Your task to perform on an android device: toggle show notifications on the lock screen Image 0: 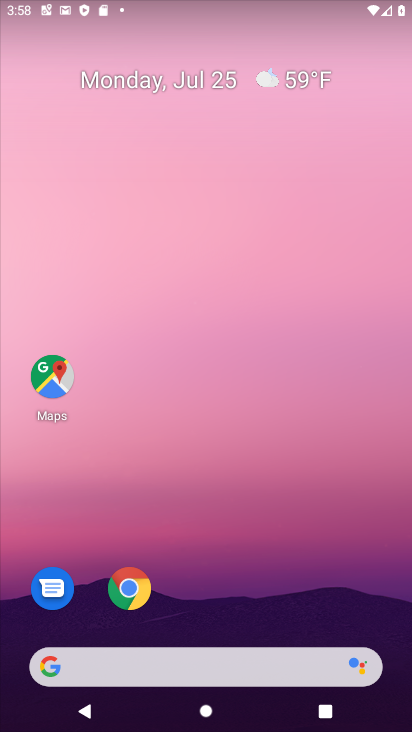
Step 0: drag from (209, 605) to (228, 57)
Your task to perform on an android device: toggle show notifications on the lock screen Image 1: 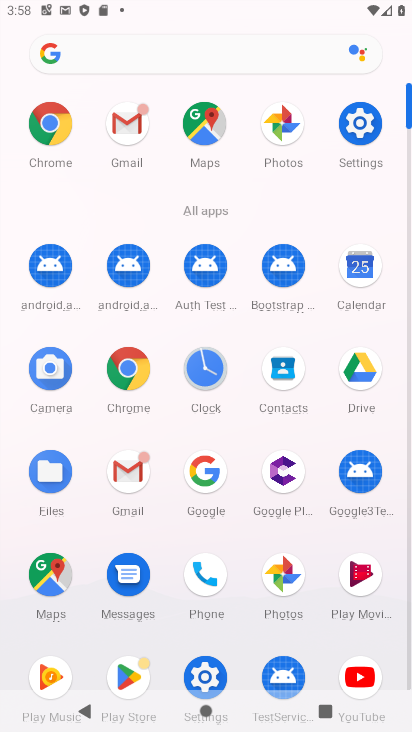
Step 1: click (207, 677)
Your task to perform on an android device: toggle show notifications on the lock screen Image 2: 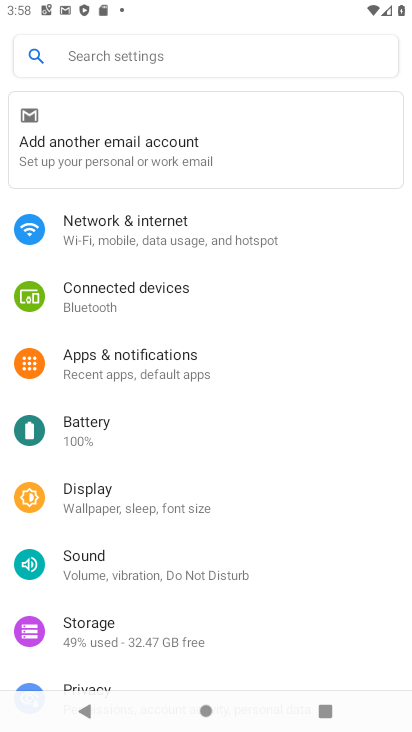
Step 2: click (121, 349)
Your task to perform on an android device: toggle show notifications on the lock screen Image 3: 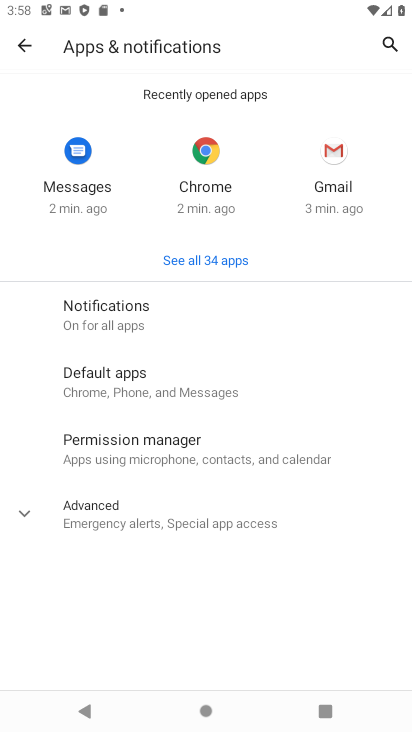
Step 3: click (125, 305)
Your task to perform on an android device: toggle show notifications on the lock screen Image 4: 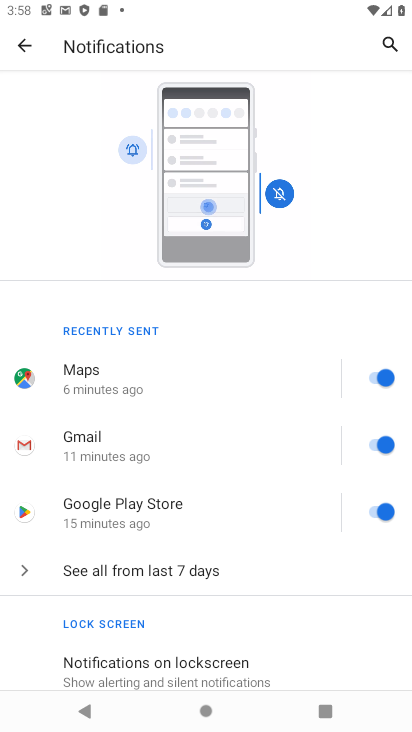
Step 4: click (190, 660)
Your task to perform on an android device: toggle show notifications on the lock screen Image 5: 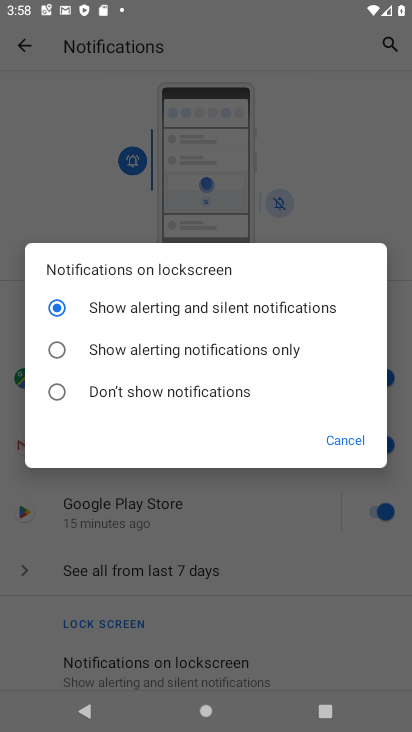
Step 5: click (140, 381)
Your task to perform on an android device: toggle show notifications on the lock screen Image 6: 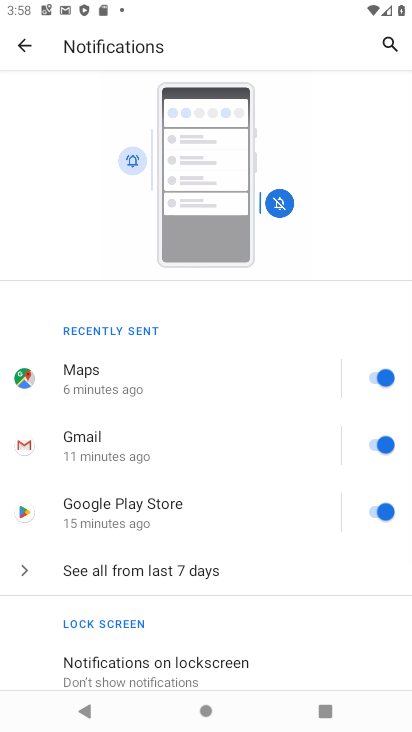
Step 6: task complete